Your task to perform on an android device: search for starred emails in the gmail app Image 0: 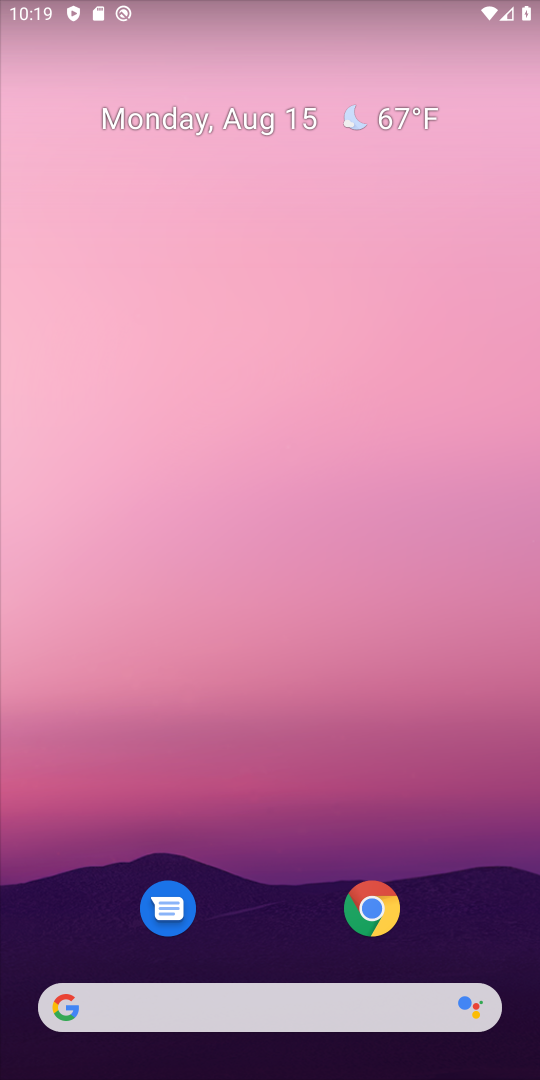
Step 0: drag from (284, 944) to (321, 300)
Your task to perform on an android device: search for starred emails in the gmail app Image 1: 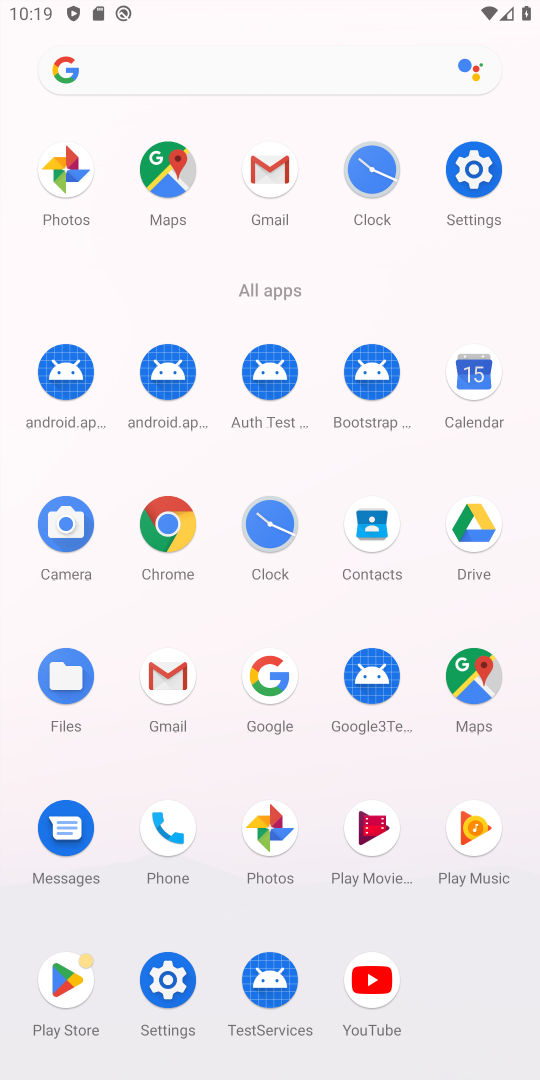
Step 1: click (278, 170)
Your task to perform on an android device: search for starred emails in the gmail app Image 2: 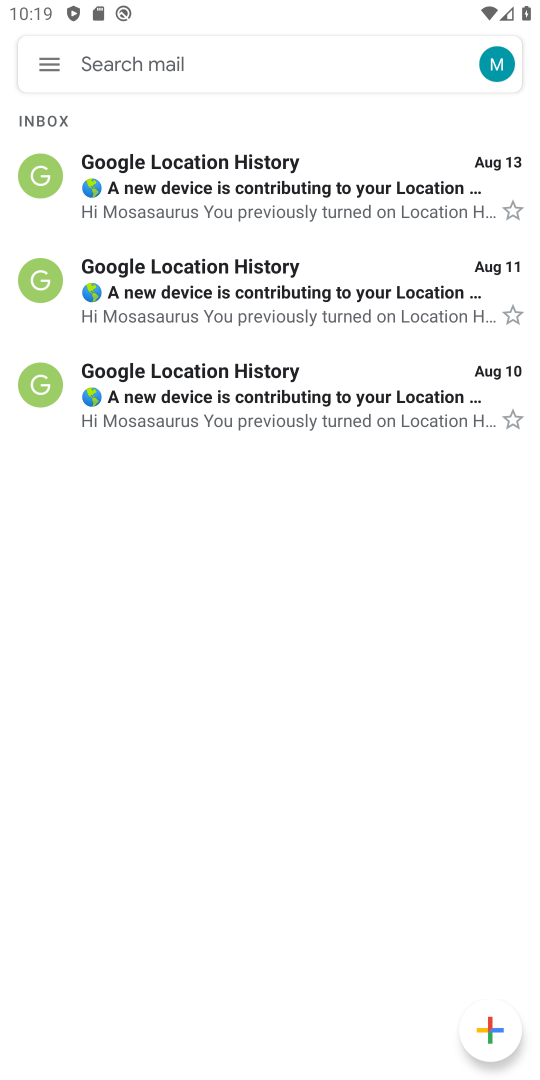
Step 2: click (43, 60)
Your task to perform on an android device: search for starred emails in the gmail app Image 3: 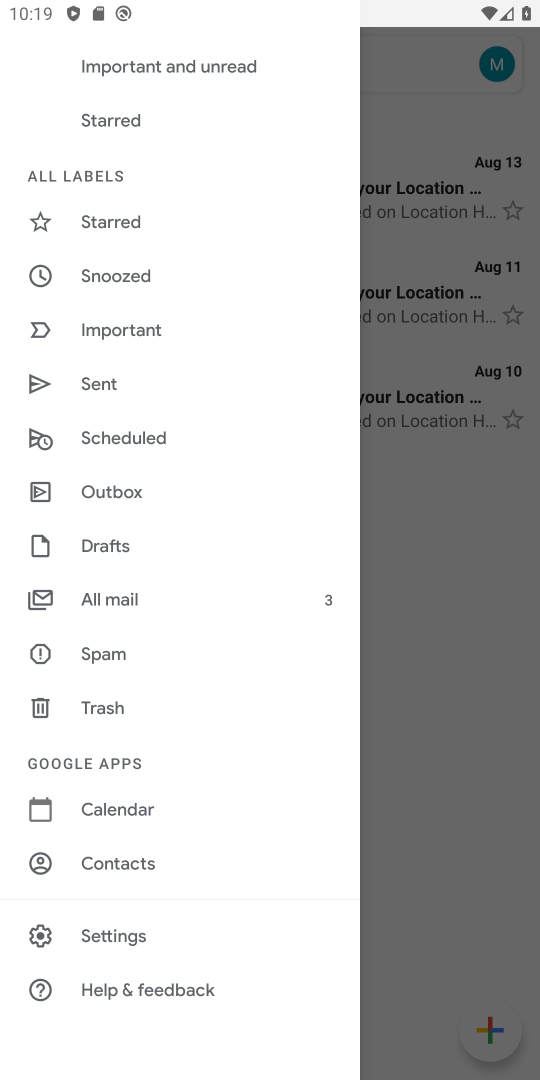
Step 3: click (122, 236)
Your task to perform on an android device: search for starred emails in the gmail app Image 4: 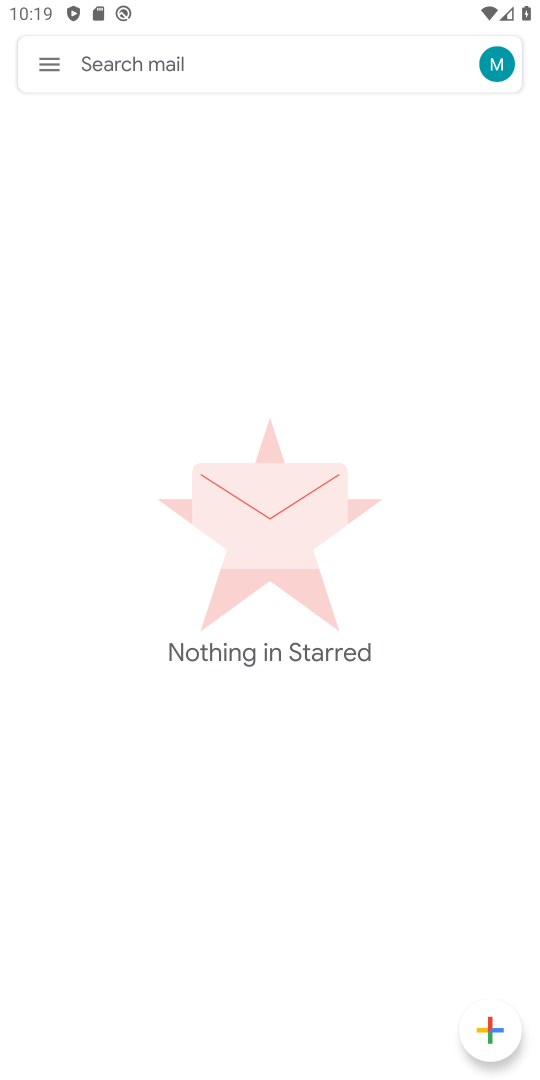
Step 4: task complete